Your task to perform on an android device: Open the stopwatch Image 0: 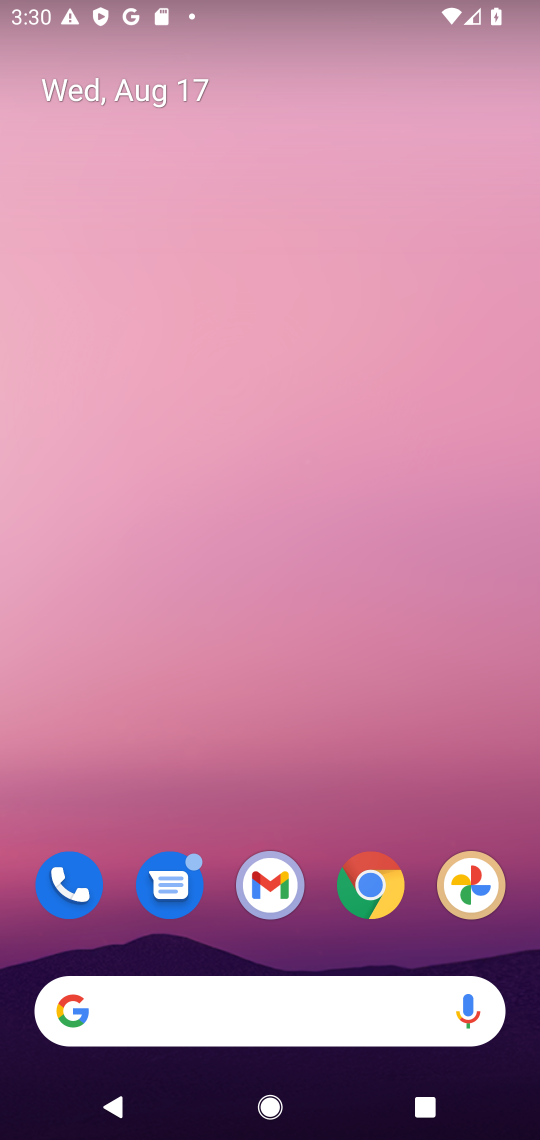
Step 0: drag from (247, 1016) to (320, 172)
Your task to perform on an android device: Open the stopwatch Image 1: 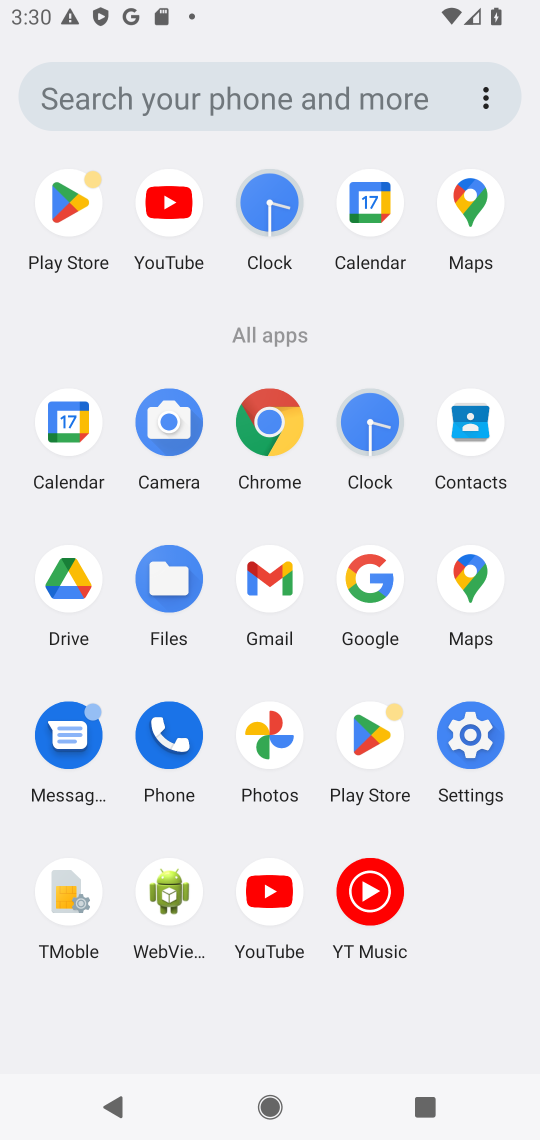
Step 1: click (269, 199)
Your task to perform on an android device: Open the stopwatch Image 2: 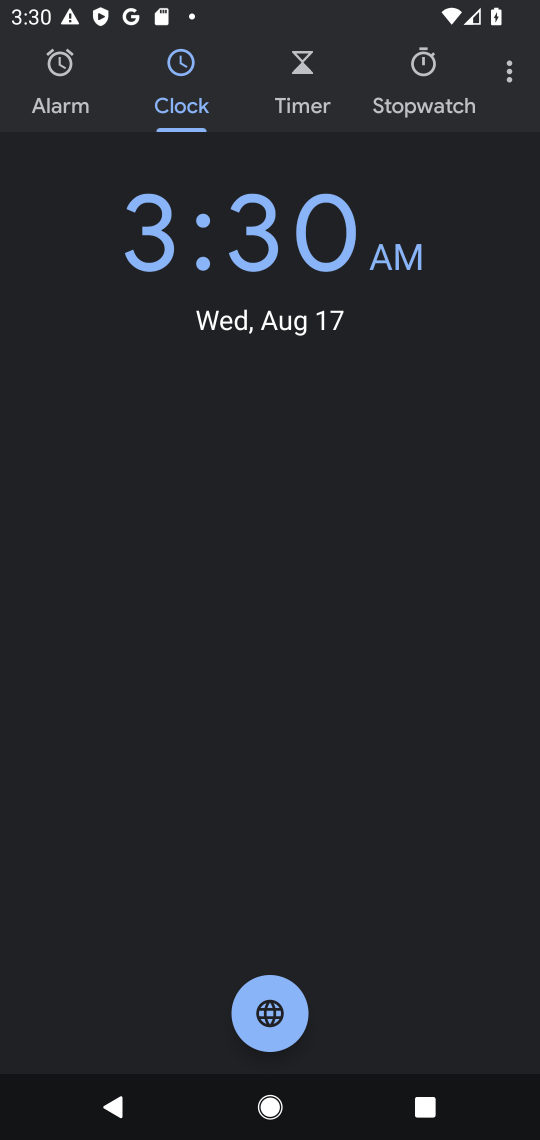
Step 2: click (425, 69)
Your task to perform on an android device: Open the stopwatch Image 3: 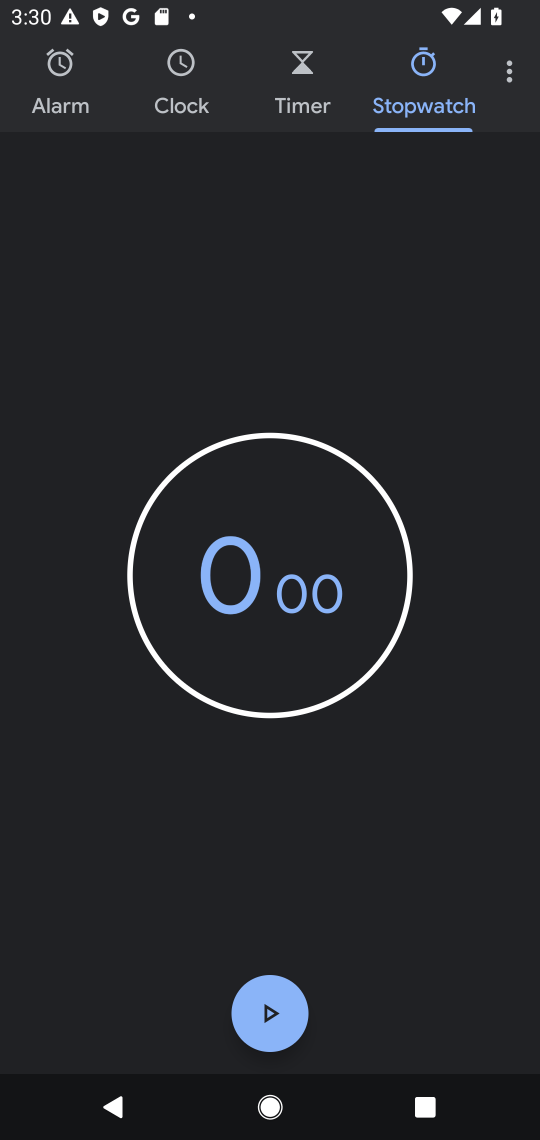
Step 3: task complete